Your task to perform on an android device: turn off wifi Image 0: 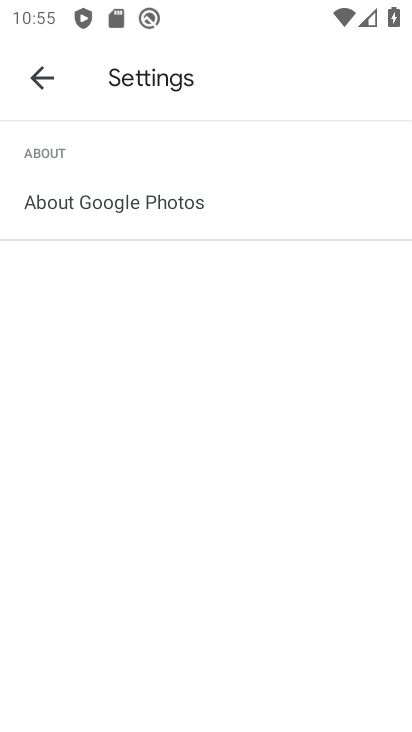
Step 0: press home button
Your task to perform on an android device: turn off wifi Image 1: 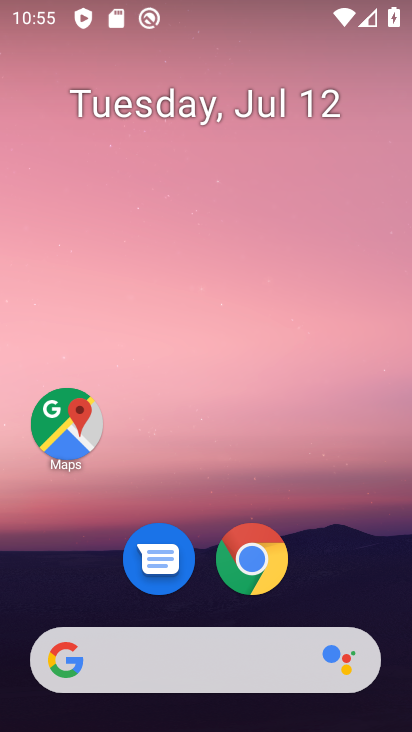
Step 1: drag from (231, 652) to (235, 208)
Your task to perform on an android device: turn off wifi Image 2: 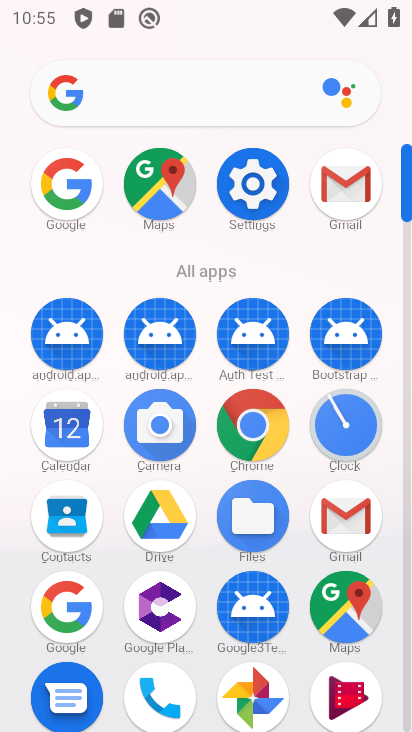
Step 2: click (266, 174)
Your task to perform on an android device: turn off wifi Image 3: 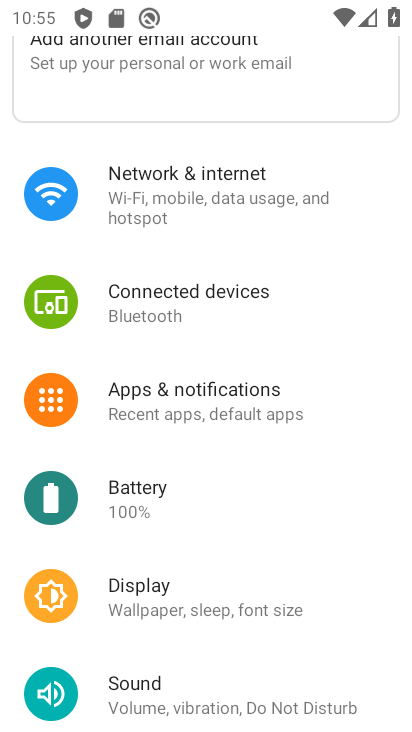
Step 3: click (213, 215)
Your task to perform on an android device: turn off wifi Image 4: 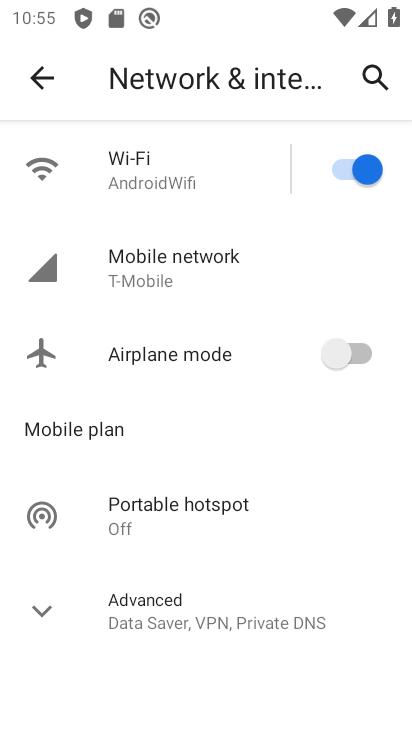
Step 4: click (347, 179)
Your task to perform on an android device: turn off wifi Image 5: 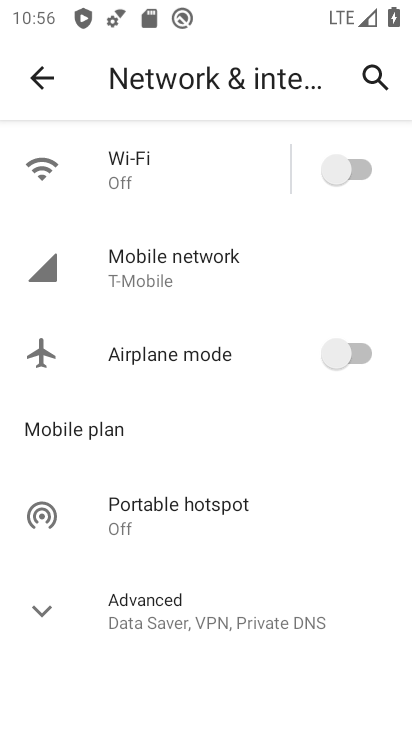
Step 5: task complete